Your task to perform on an android device: Open maps Image 0: 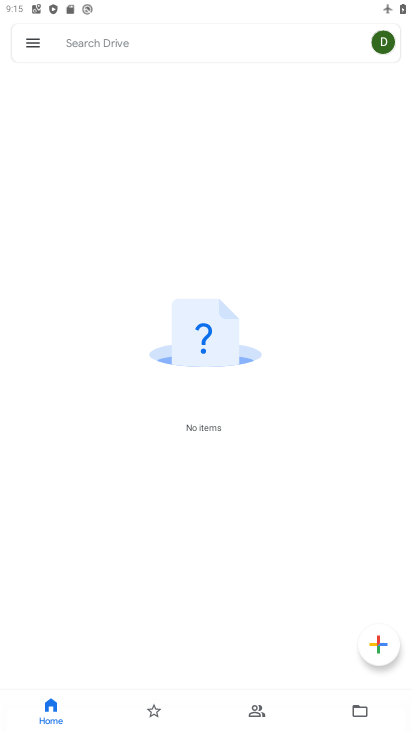
Step 0: press home button
Your task to perform on an android device: Open maps Image 1: 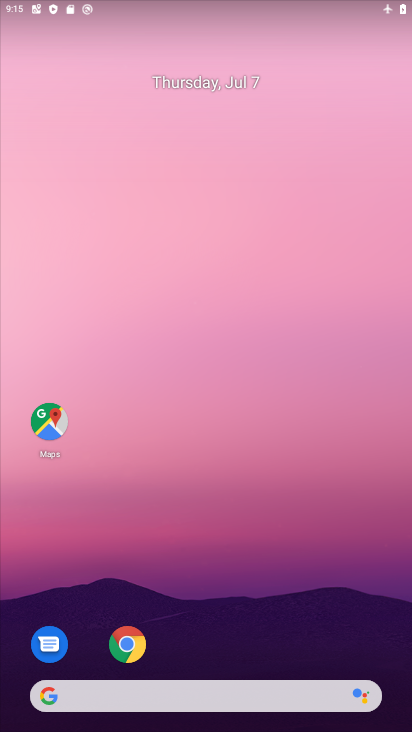
Step 1: click (48, 414)
Your task to perform on an android device: Open maps Image 2: 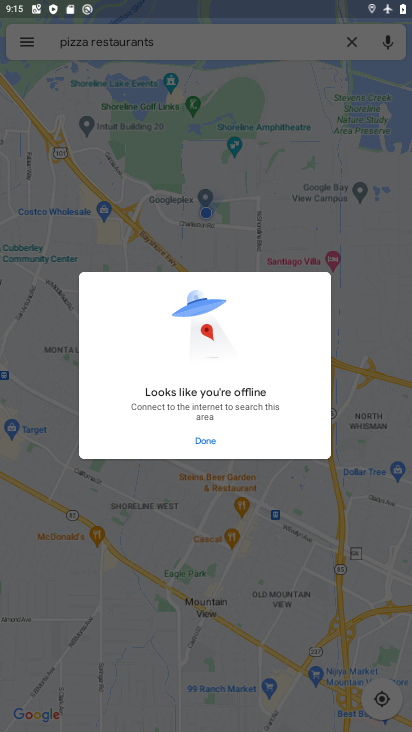
Step 2: task complete